Your task to perform on an android device: add a contact in the contacts app Image 0: 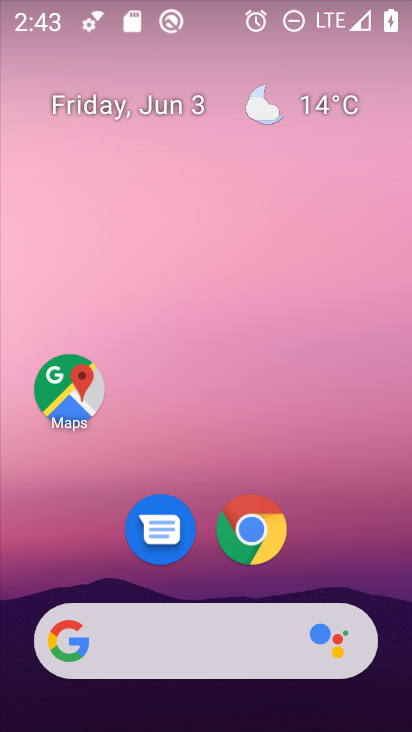
Step 0: drag from (372, 562) to (369, 229)
Your task to perform on an android device: add a contact in the contacts app Image 1: 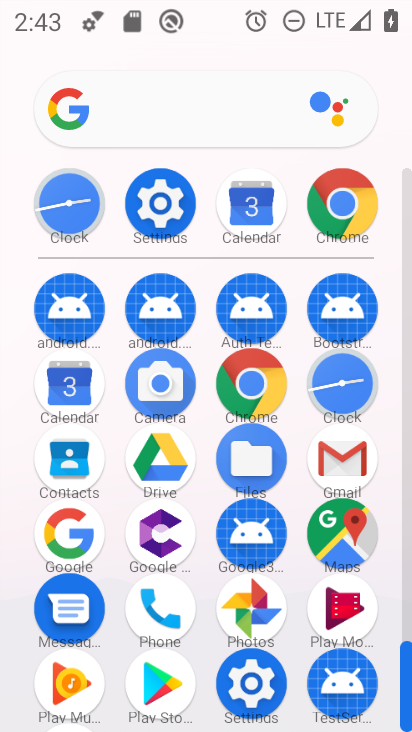
Step 1: click (80, 465)
Your task to perform on an android device: add a contact in the contacts app Image 2: 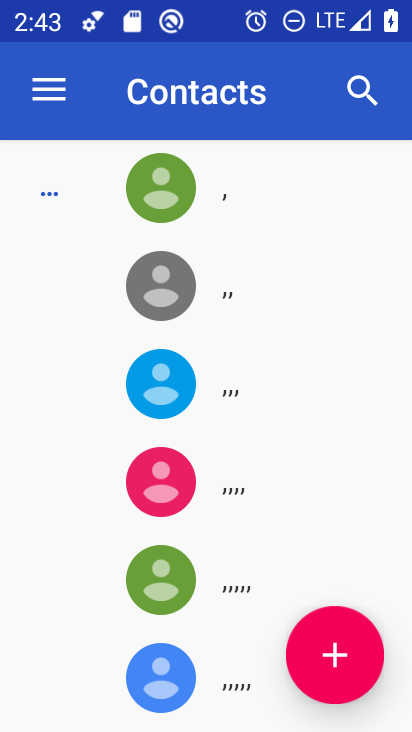
Step 2: click (340, 639)
Your task to perform on an android device: add a contact in the contacts app Image 3: 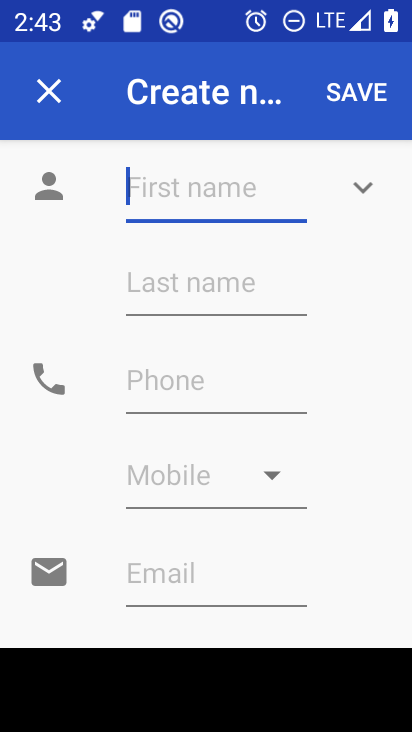
Step 3: type "poooooooooooo"
Your task to perform on an android device: add a contact in the contacts app Image 4: 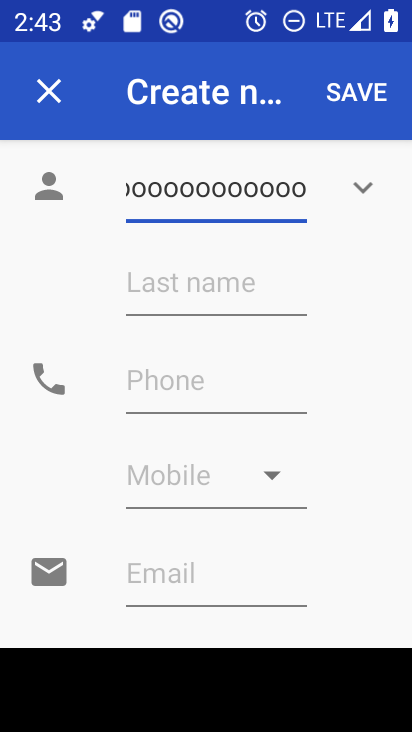
Step 4: click (211, 403)
Your task to perform on an android device: add a contact in the contacts app Image 5: 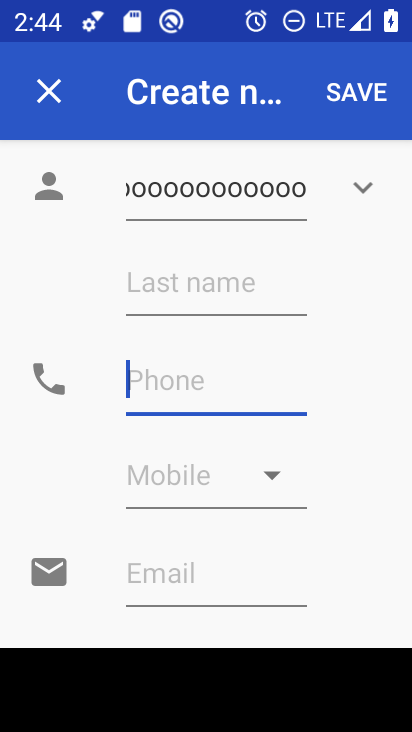
Step 5: type "123456789"
Your task to perform on an android device: add a contact in the contacts app Image 6: 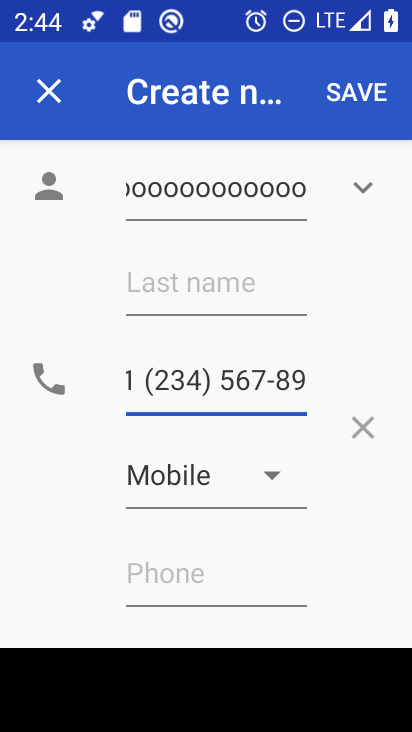
Step 6: click (359, 99)
Your task to perform on an android device: add a contact in the contacts app Image 7: 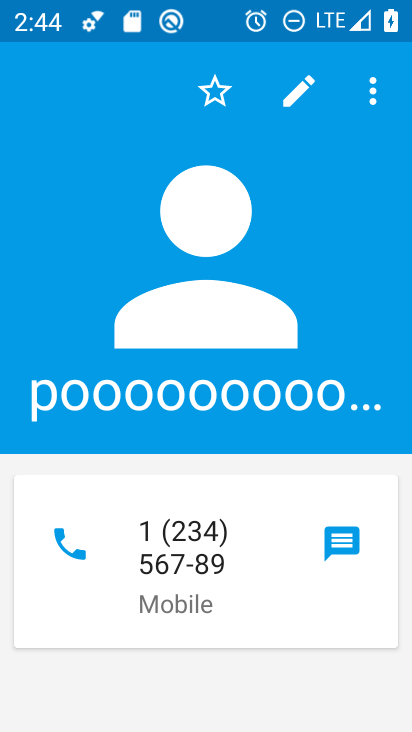
Step 7: task complete